Your task to perform on an android device: open app "ColorNote Notepad Notes" (install if not already installed) Image 0: 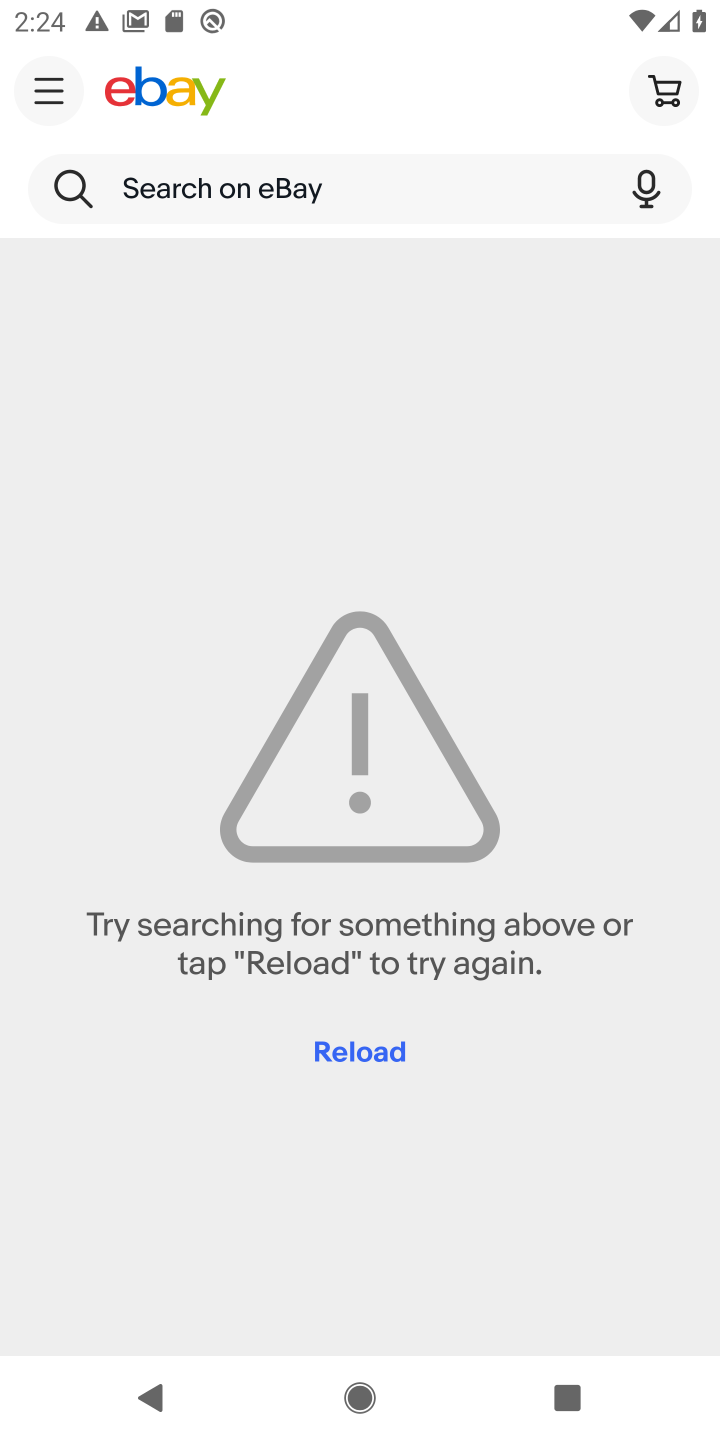
Step 0: click (626, 636)
Your task to perform on an android device: open app "ColorNote Notepad Notes" (install if not already installed) Image 1: 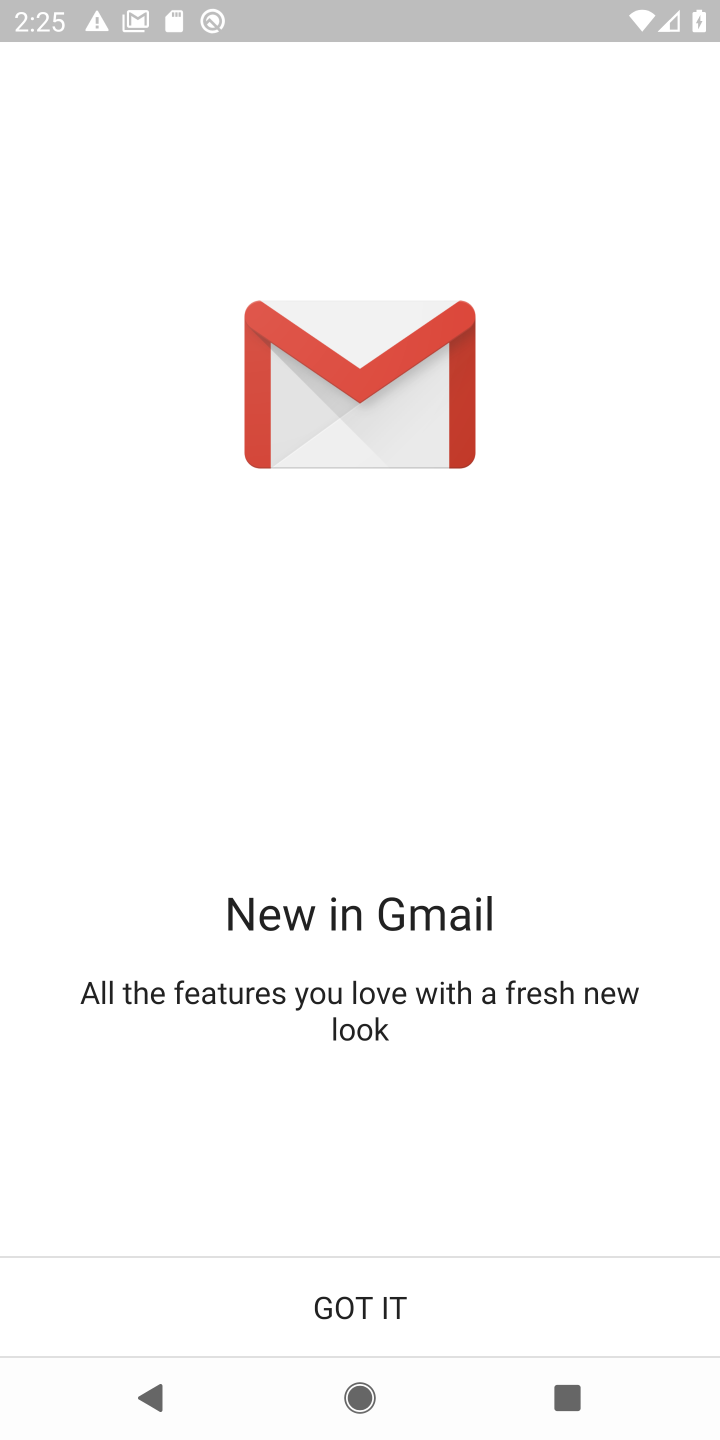
Step 1: press home button
Your task to perform on an android device: open app "ColorNote Notepad Notes" (install if not already installed) Image 2: 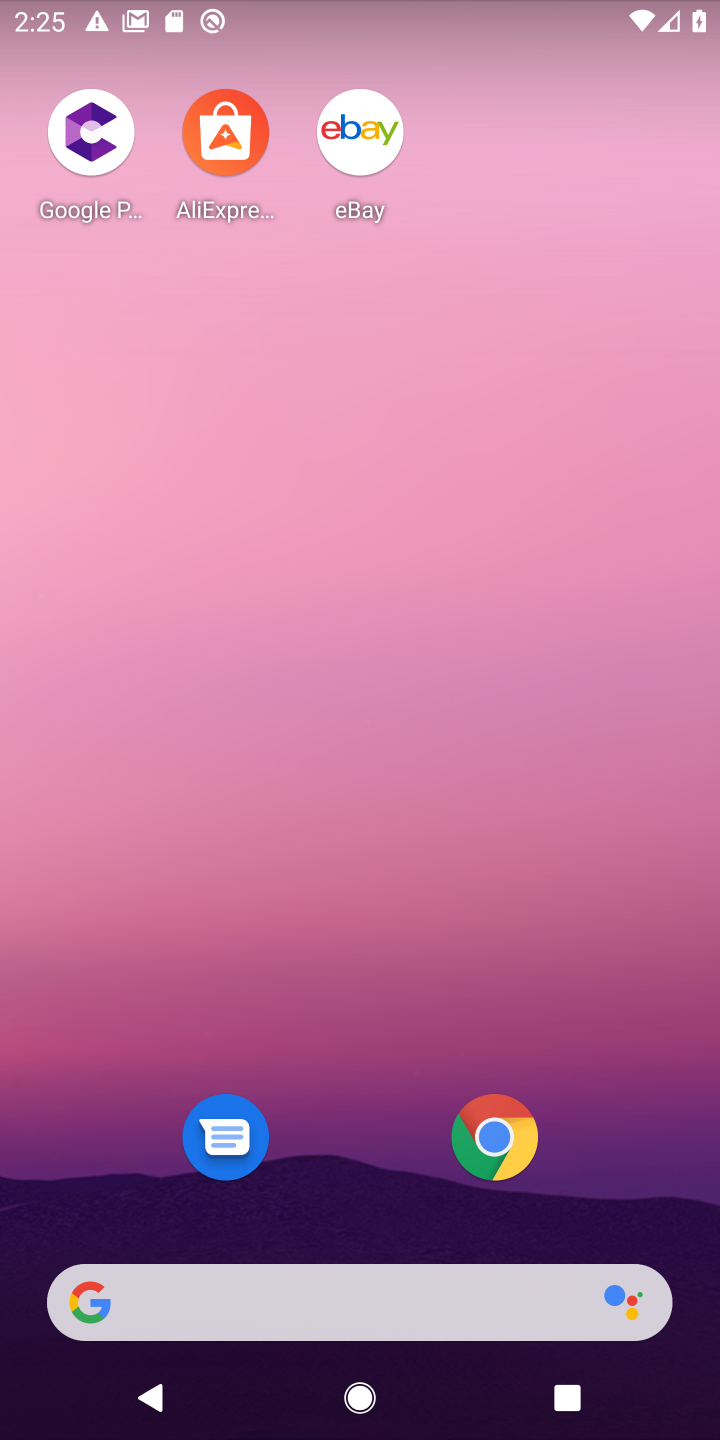
Step 2: drag from (354, 1111) to (50, 20)
Your task to perform on an android device: open app "ColorNote Notepad Notes" (install if not already installed) Image 3: 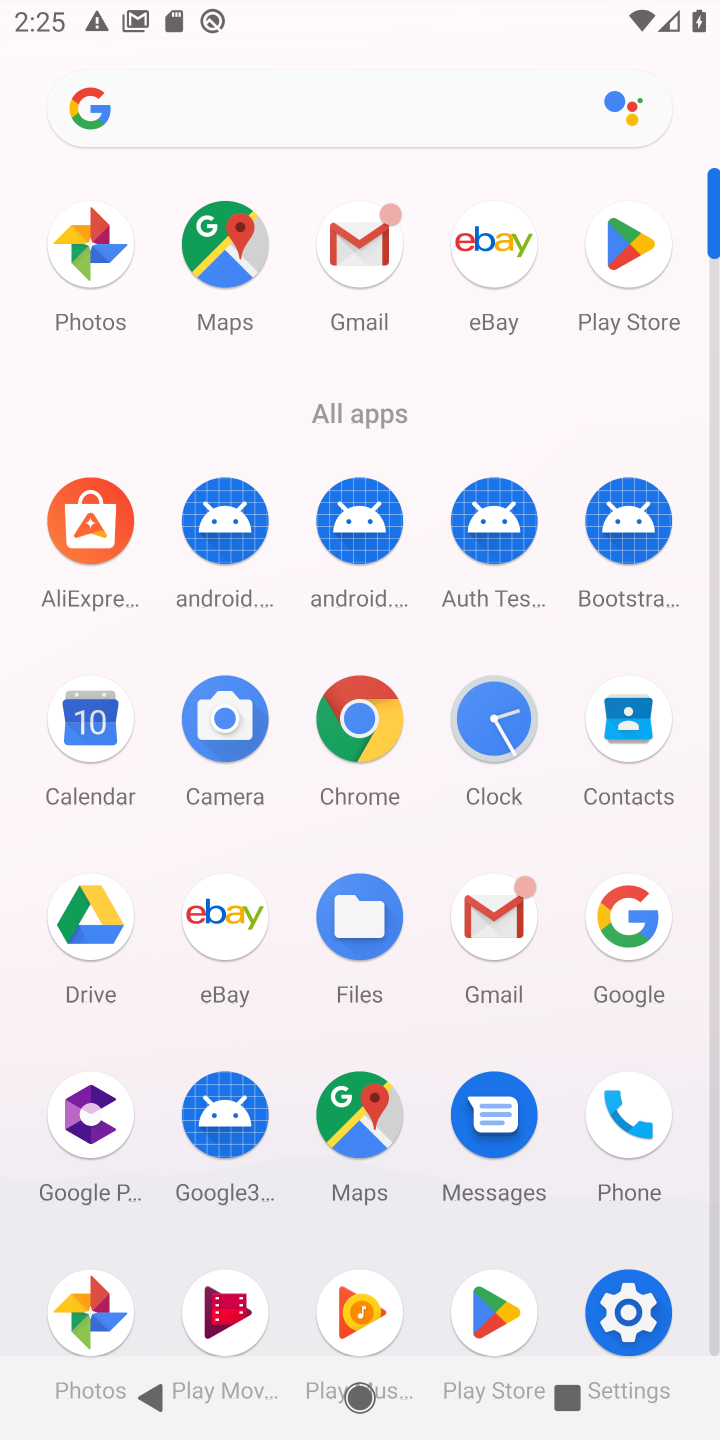
Step 3: click (621, 247)
Your task to perform on an android device: open app "ColorNote Notepad Notes" (install if not already installed) Image 4: 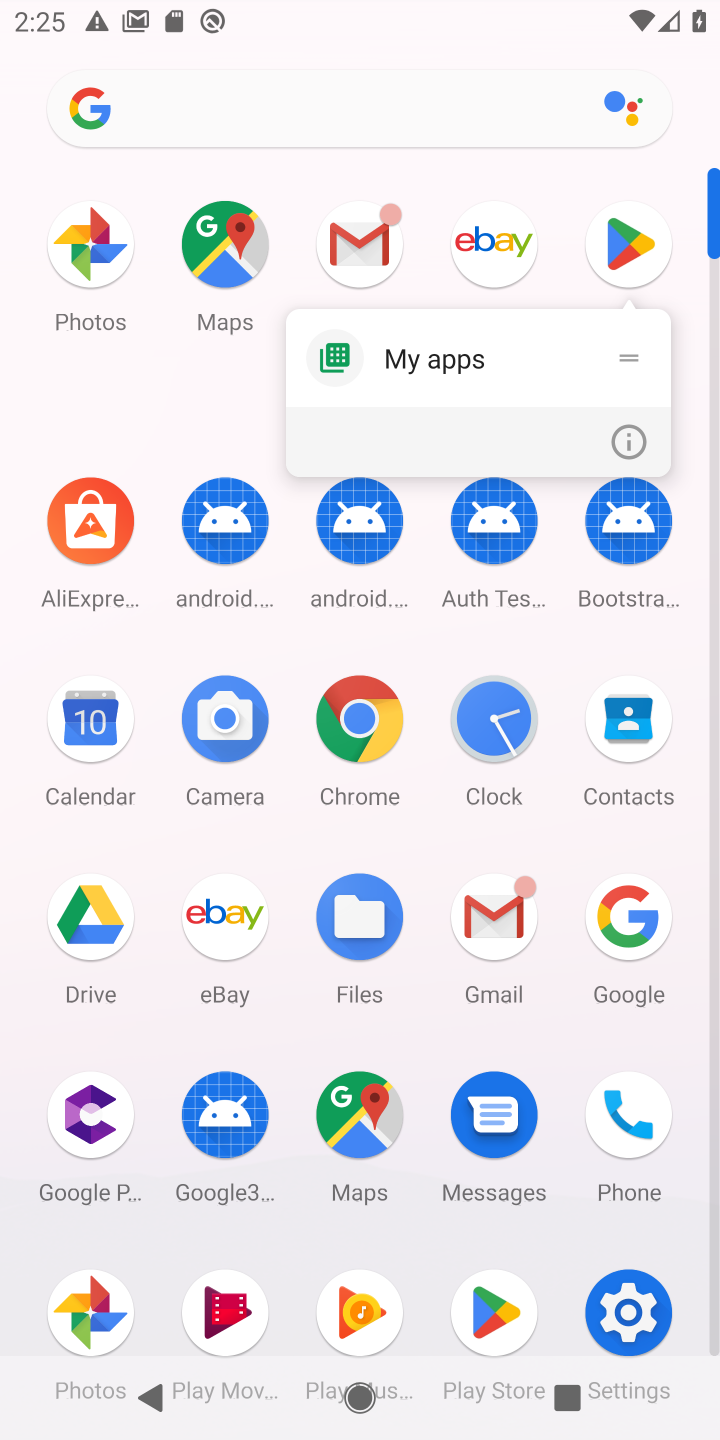
Step 4: click (625, 249)
Your task to perform on an android device: open app "ColorNote Notepad Notes" (install if not already installed) Image 5: 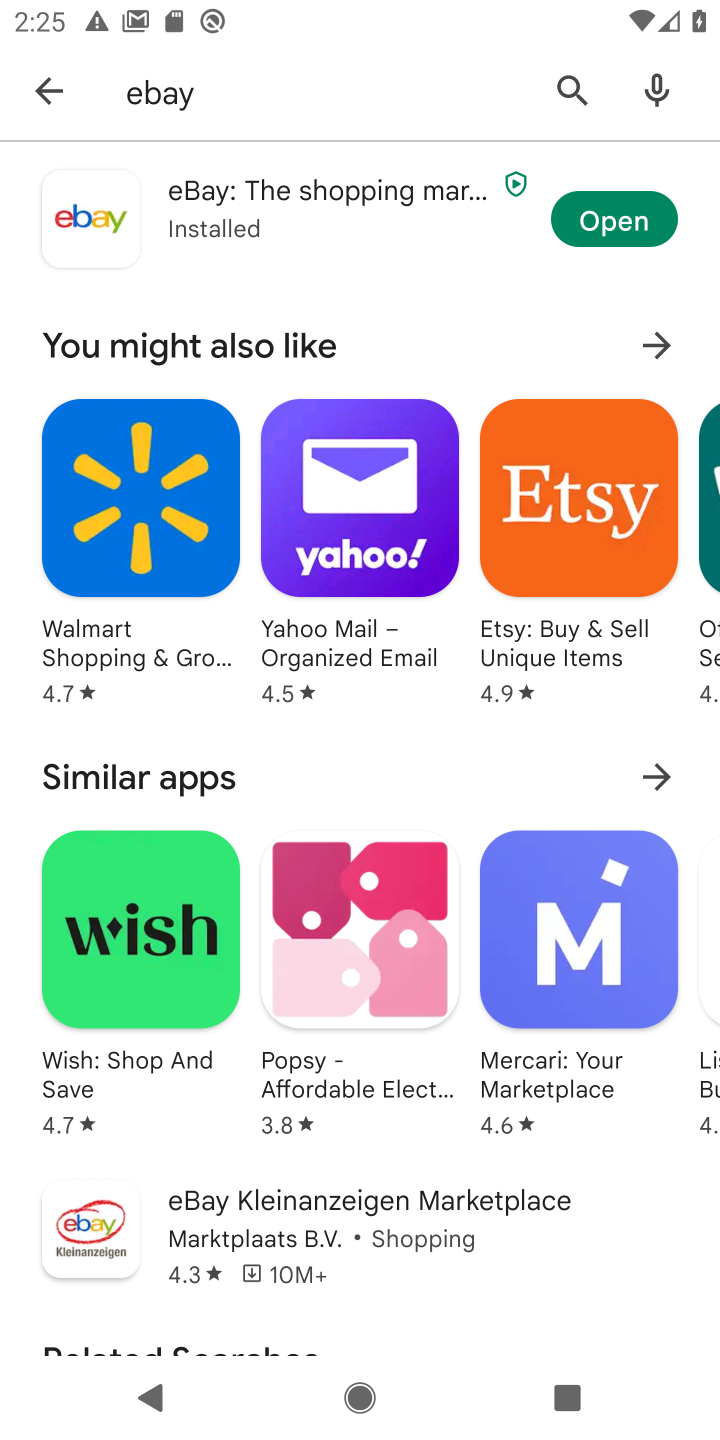
Step 5: click (294, 76)
Your task to perform on an android device: open app "ColorNote Notepad Notes" (install if not already installed) Image 6: 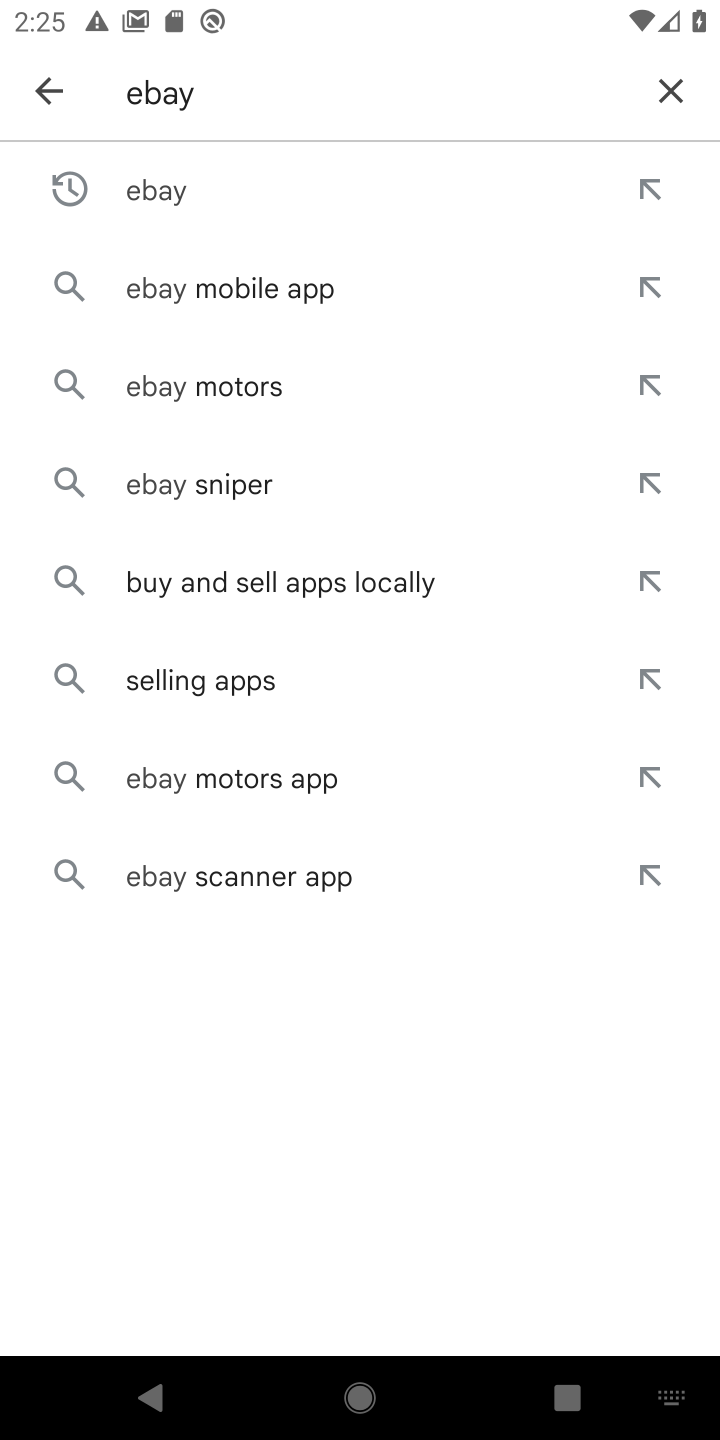
Step 6: click (683, 95)
Your task to perform on an android device: open app "ColorNote Notepad Notes" (install if not already installed) Image 7: 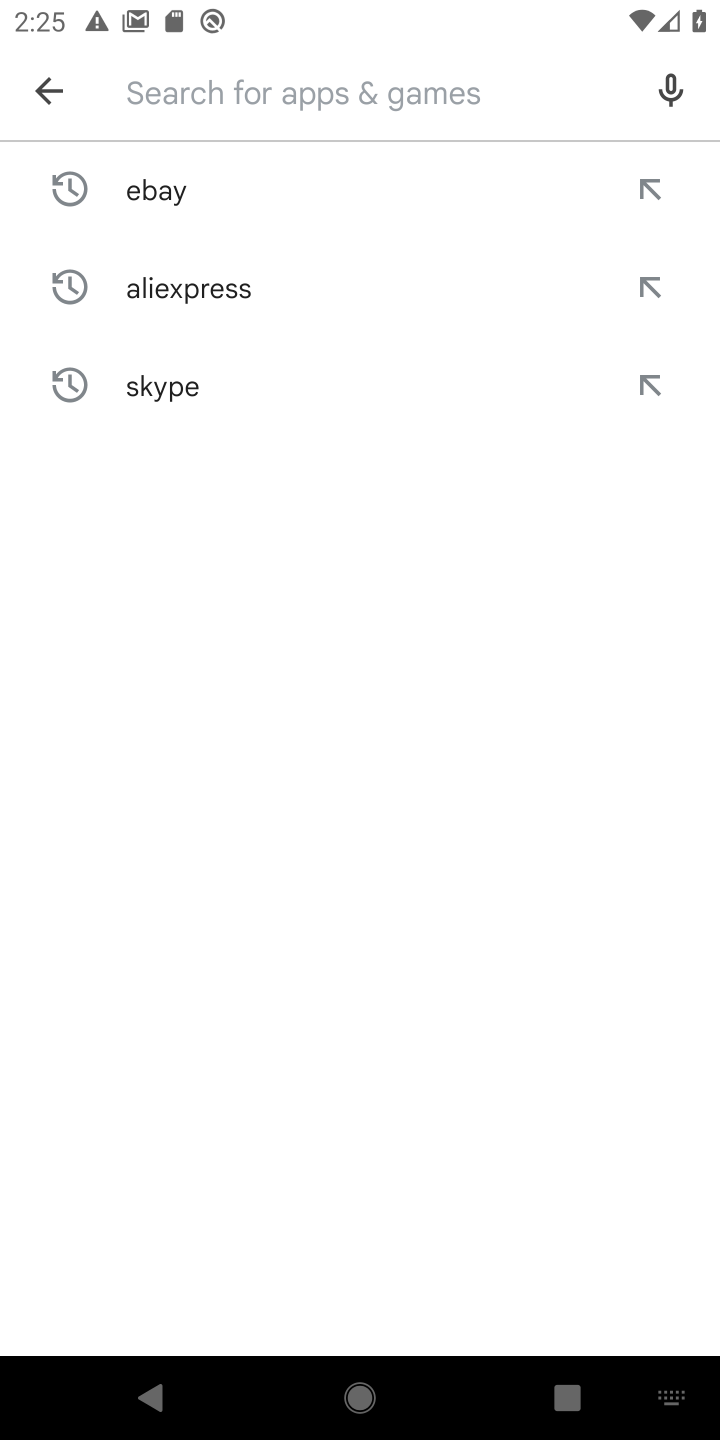
Step 7: type "ColorNote Notepad Notes"
Your task to perform on an android device: open app "ColorNote Notepad Notes" (install if not already installed) Image 8: 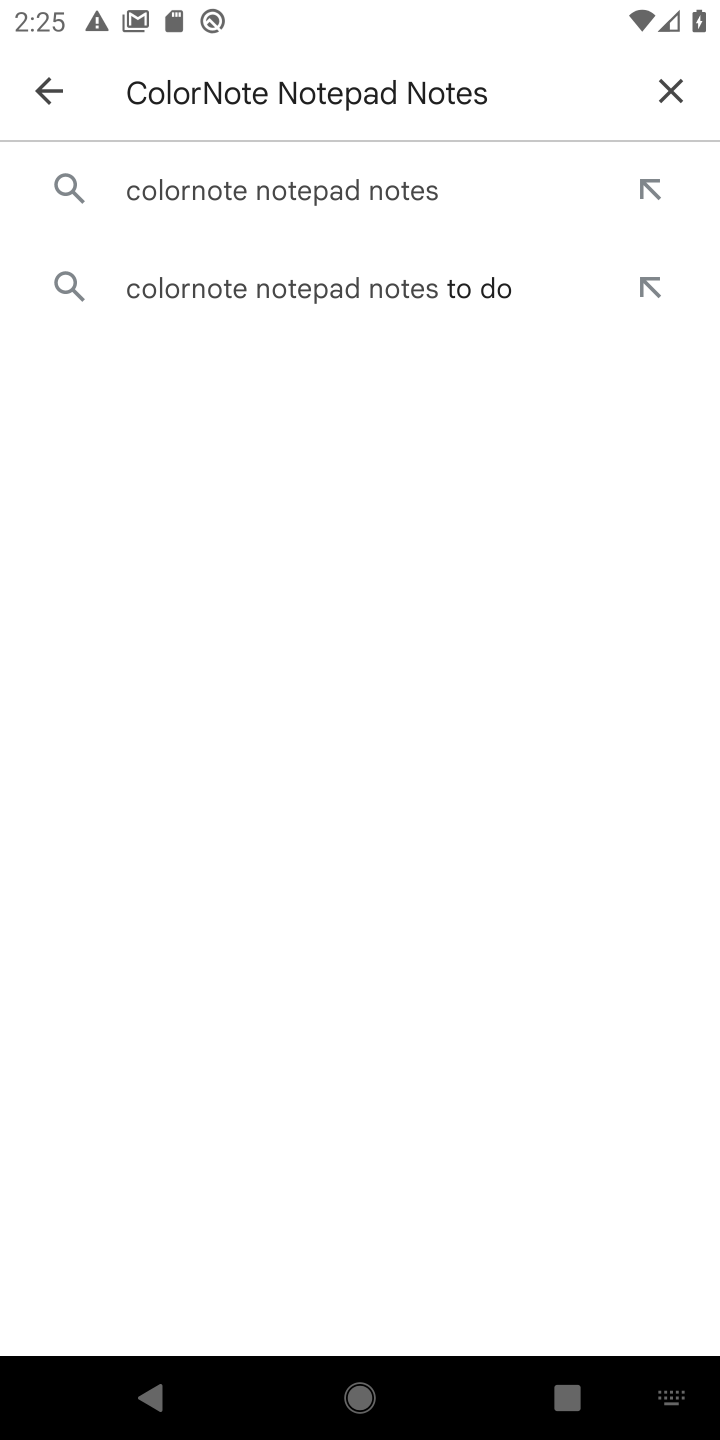
Step 8: click (266, 189)
Your task to perform on an android device: open app "ColorNote Notepad Notes" (install if not already installed) Image 9: 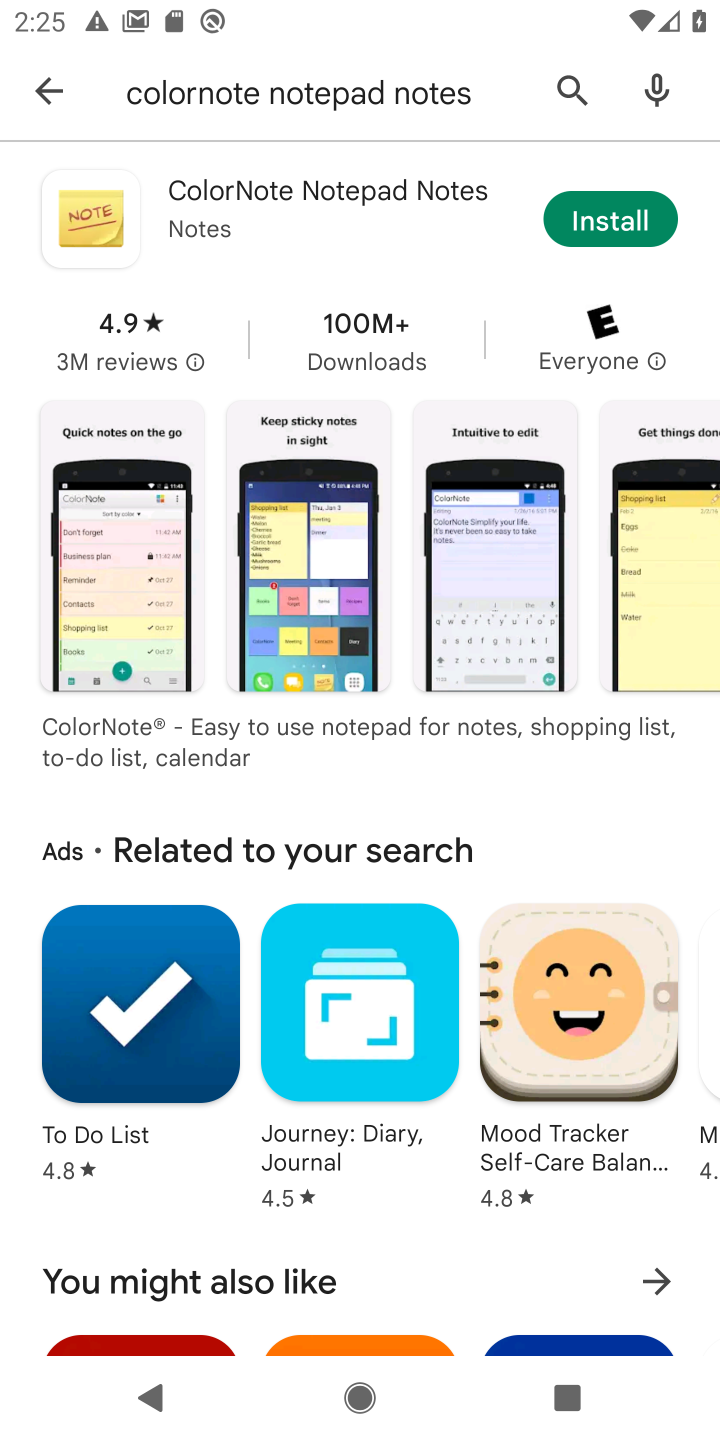
Step 9: click (662, 210)
Your task to perform on an android device: open app "ColorNote Notepad Notes" (install if not already installed) Image 10: 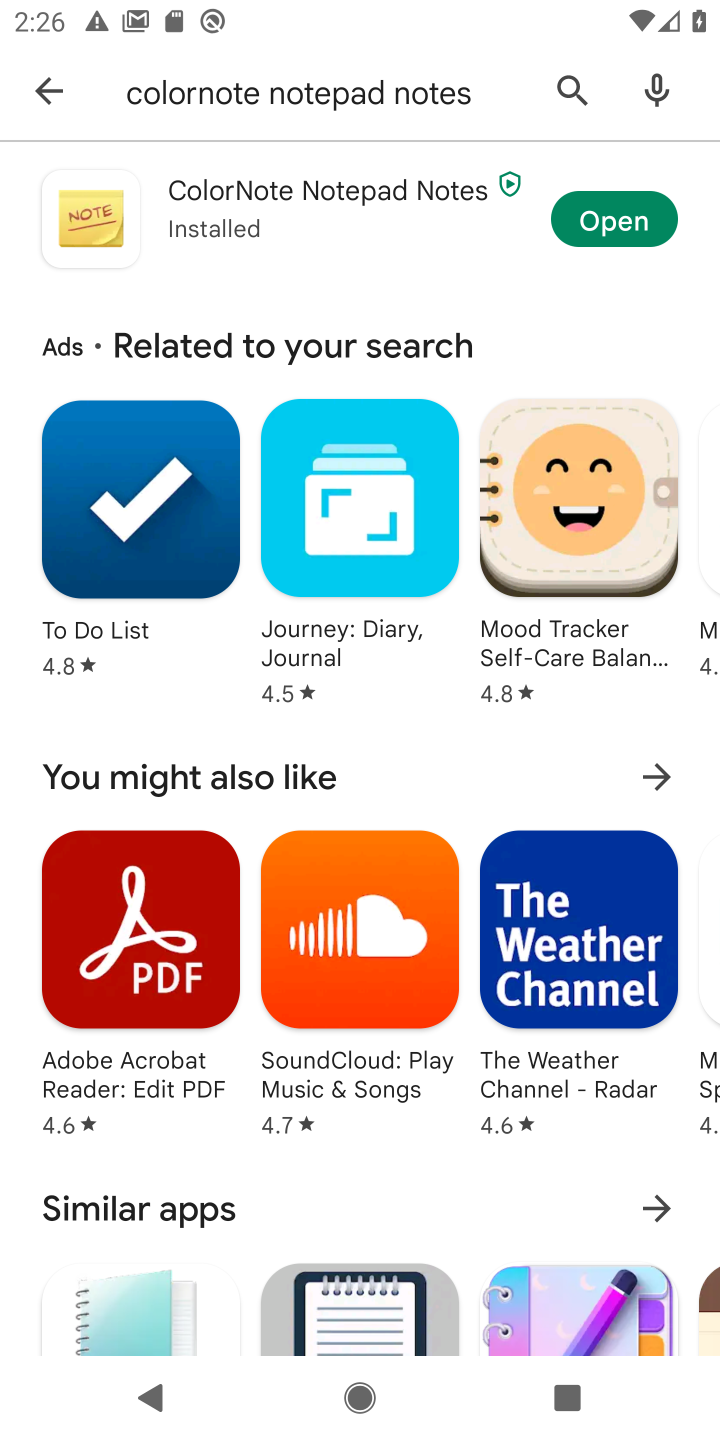
Step 10: click (638, 201)
Your task to perform on an android device: open app "ColorNote Notepad Notes" (install if not already installed) Image 11: 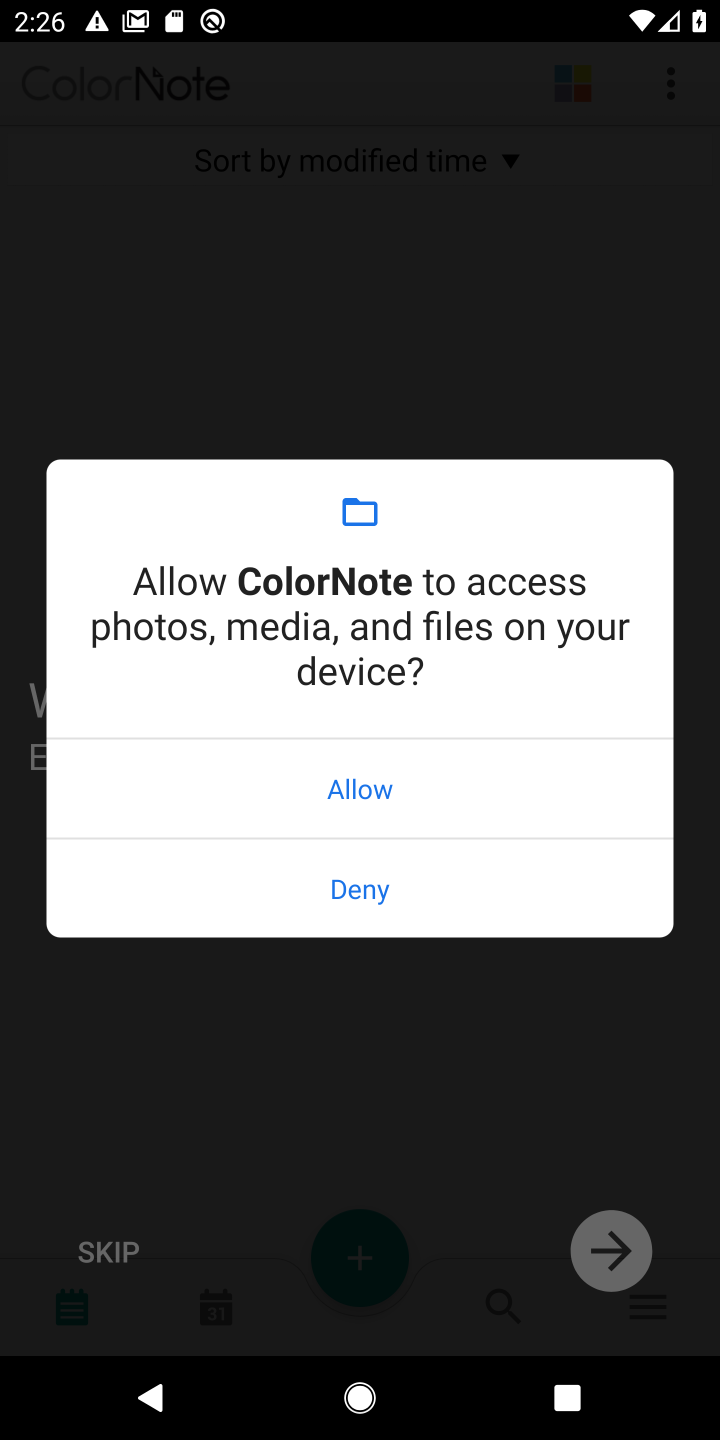
Step 11: click (366, 774)
Your task to perform on an android device: open app "ColorNote Notepad Notes" (install if not already installed) Image 12: 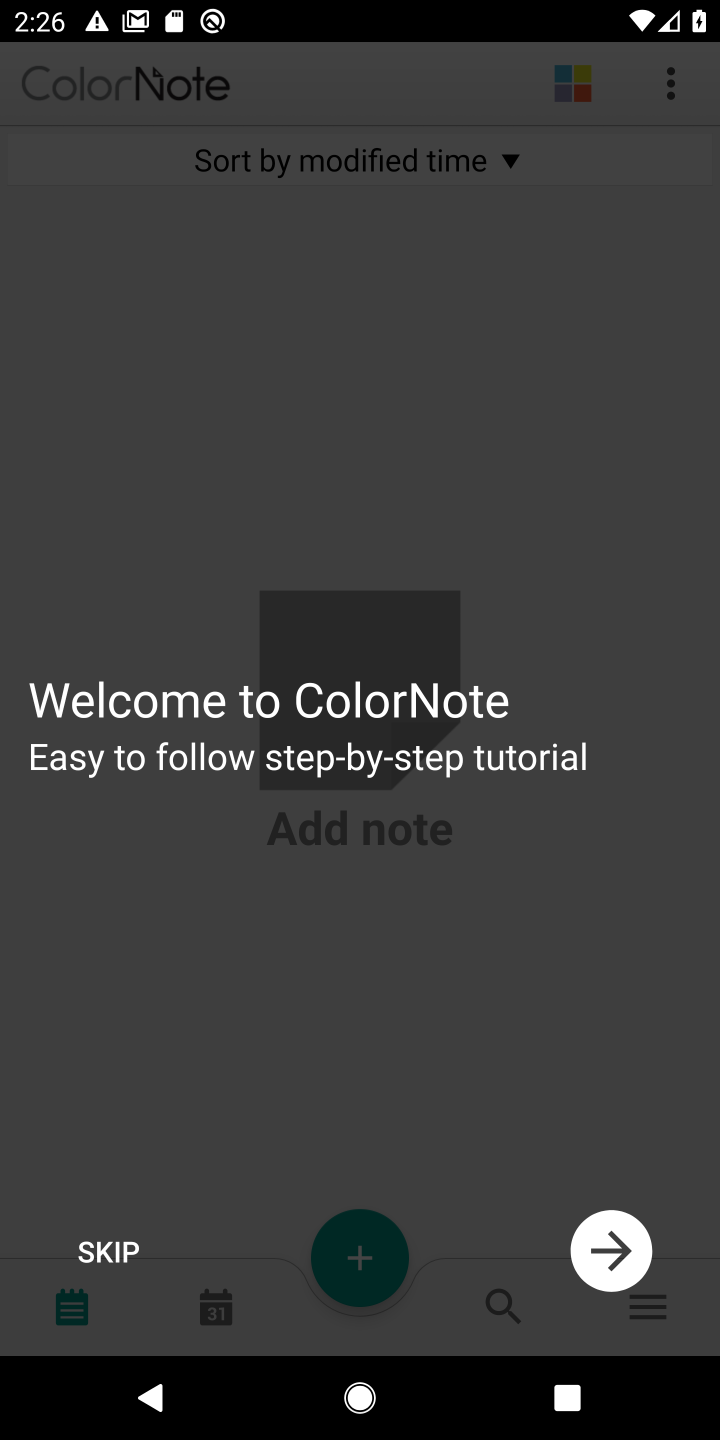
Step 12: click (112, 1267)
Your task to perform on an android device: open app "ColorNote Notepad Notes" (install if not already installed) Image 13: 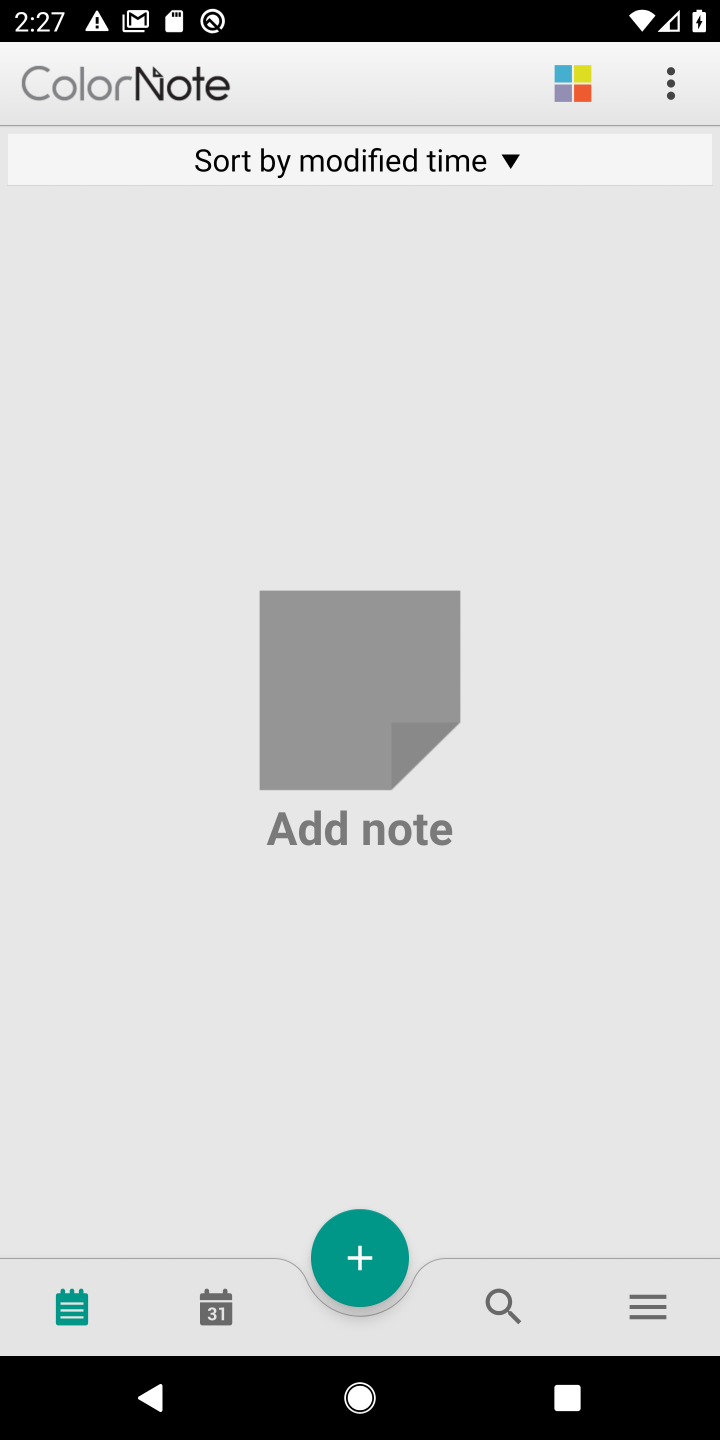
Step 13: task complete